Your task to perform on an android device: Go to Google Image 0: 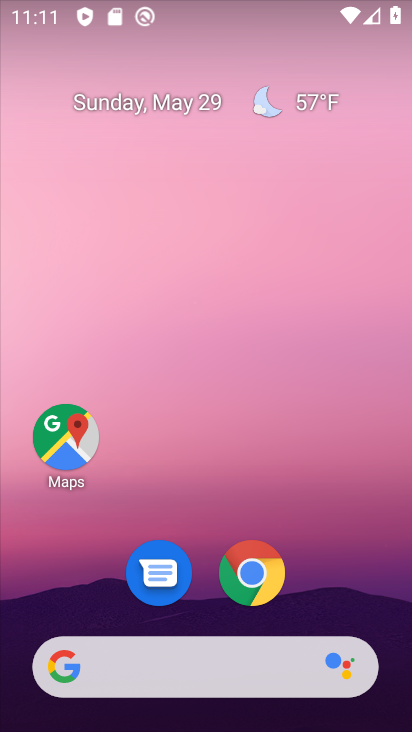
Step 0: drag from (204, 658) to (228, 19)
Your task to perform on an android device: Go to Google Image 1: 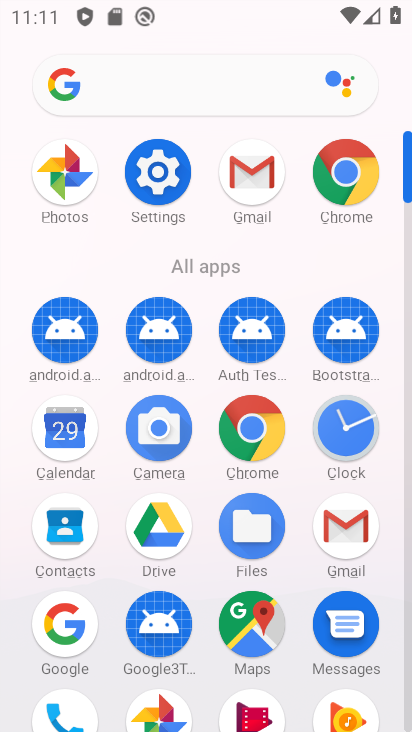
Step 1: click (72, 647)
Your task to perform on an android device: Go to Google Image 2: 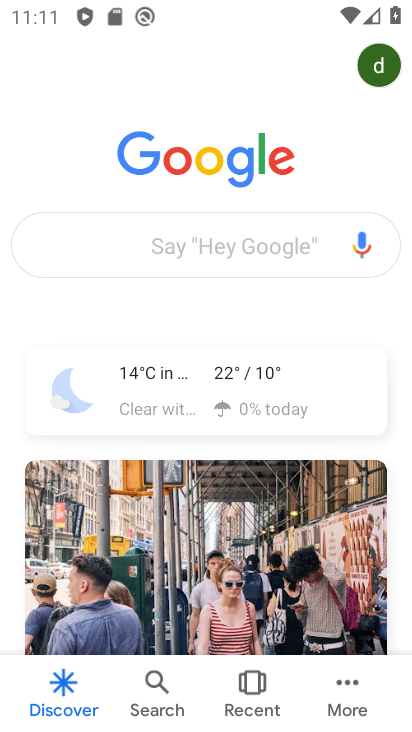
Step 2: task complete